Your task to perform on an android device: What's the weather? Image 0: 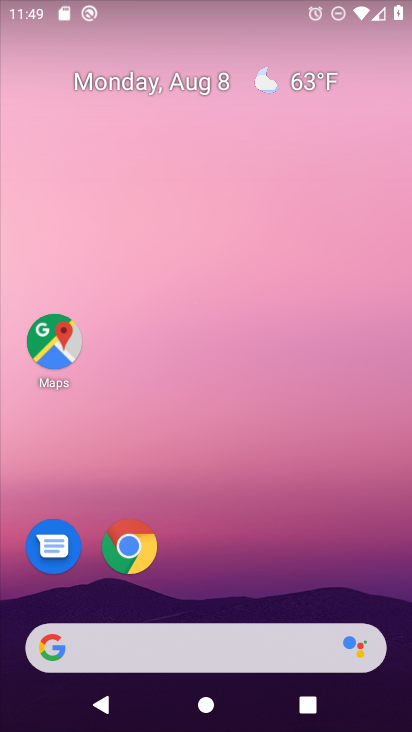
Step 0: drag from (221, 599) to (245, 33)
Your task to perform on an android device: What's the weather? Image 1: 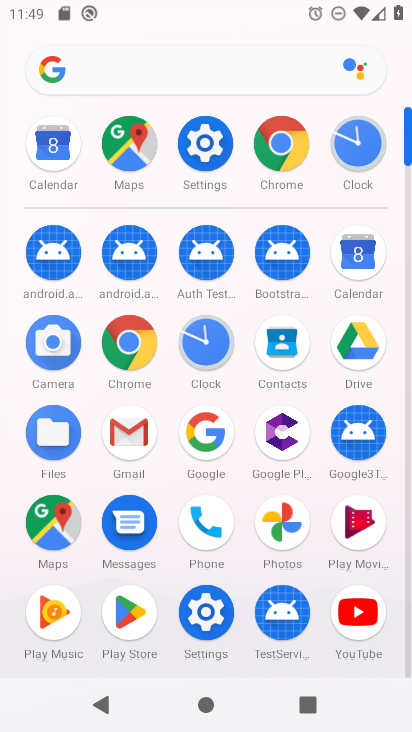
Step 1: click (147, 72)
Your task to perform on an android device: What's the weather? Image 2: 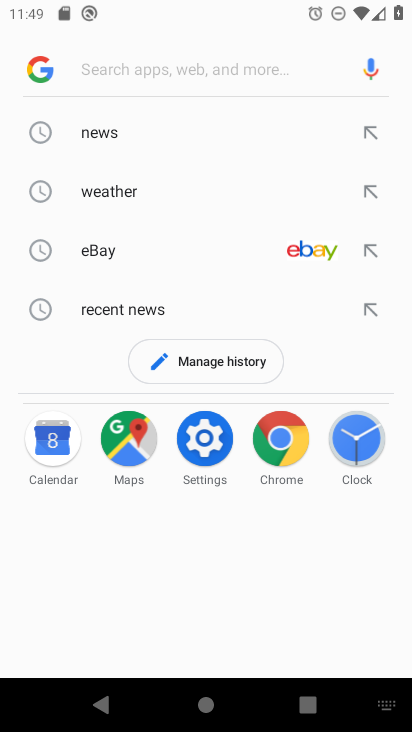
Step 2: click (106, 191)
Your task to perform on an android device: What's the weather? Image 3: 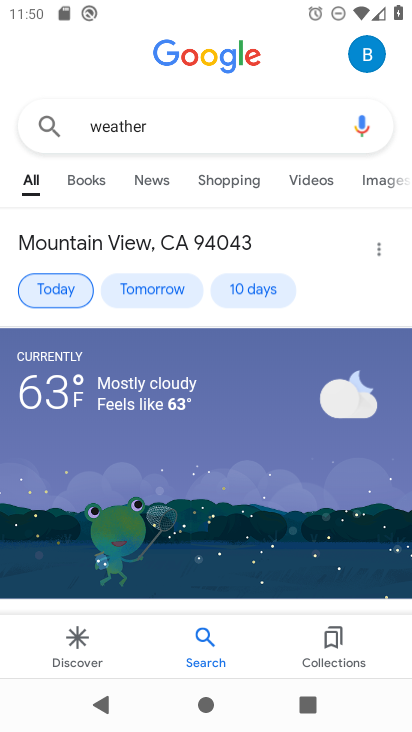
Step 3: task complete